Your task to perform on an android device: Go to network settings Image 0: 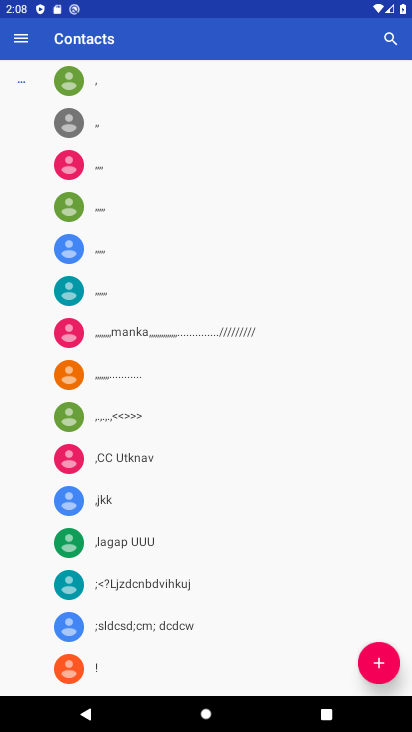
Step 0: press home button
Your task to perform on an android device: Go to network settings Image 1: 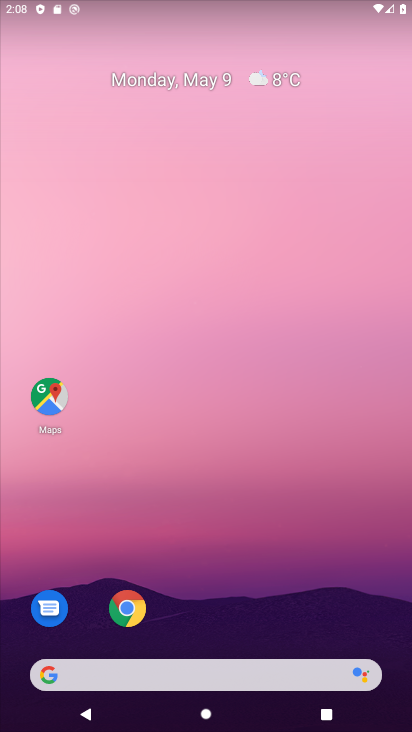
Step 1: drag from (216, 666) to (326, 263)
Your task to perform on an android device: Go to network settings Image 2: 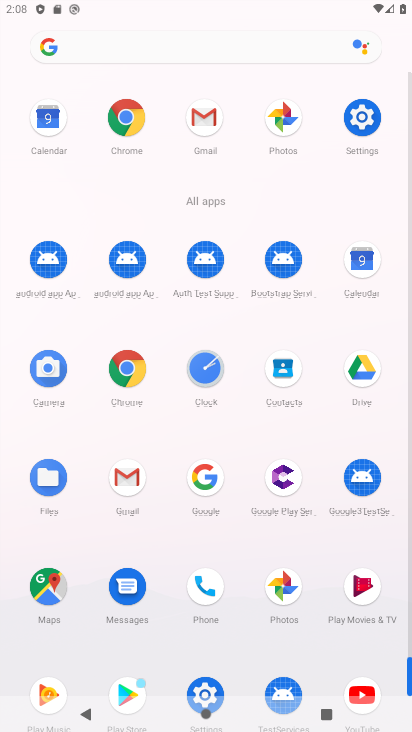
Step 2: click (363, 114)
Your task to perform on an android device: Go to network settings Image 3: 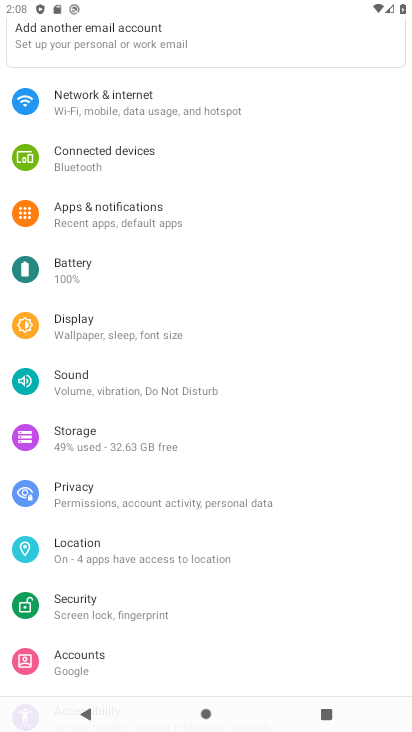
Step 3: drag from (292, 120) to (284, 165)
Your task to perform on an android device: Go to network settings Image 4: 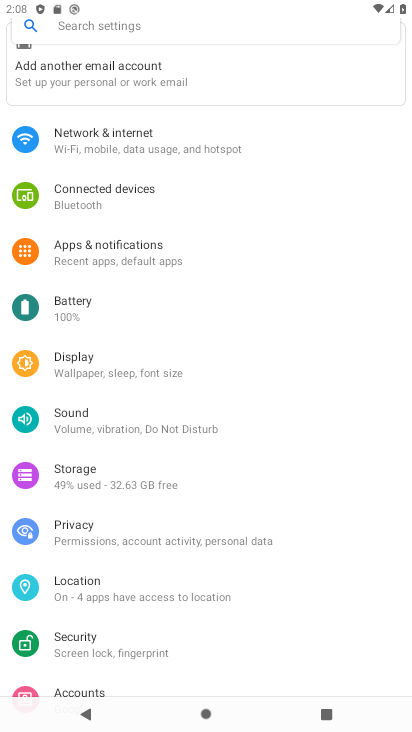
Step 4: click (253, 157)
Your task to perform on an android device: Go to network settings Image 5: 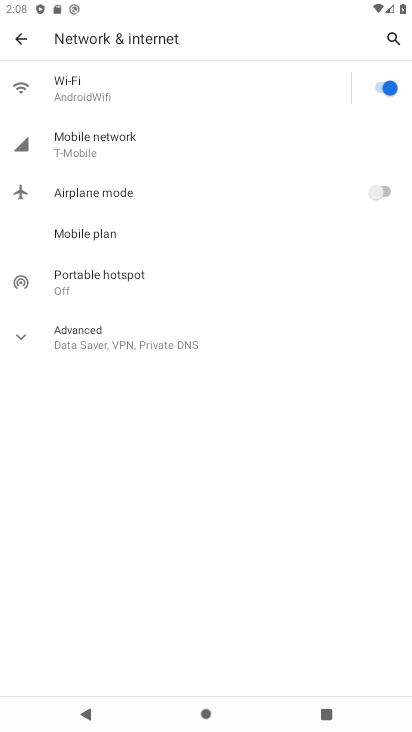
Step 5: click (172, 149)
Your task to perform on an android device: Go to network settings Image 6: 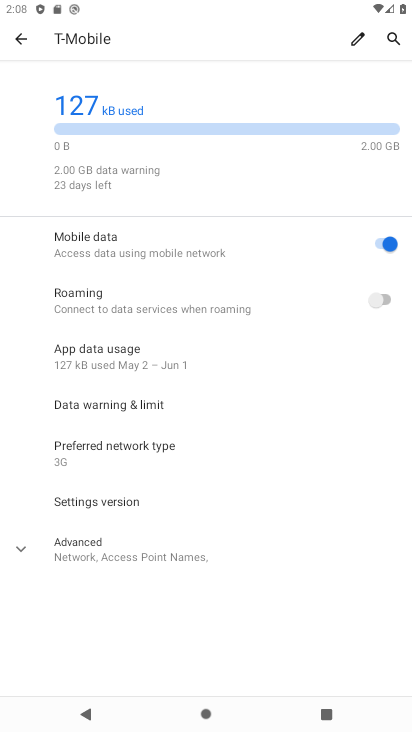
Step 6: task complete